Your task to perform on an android device: open wifi settings Image 0: 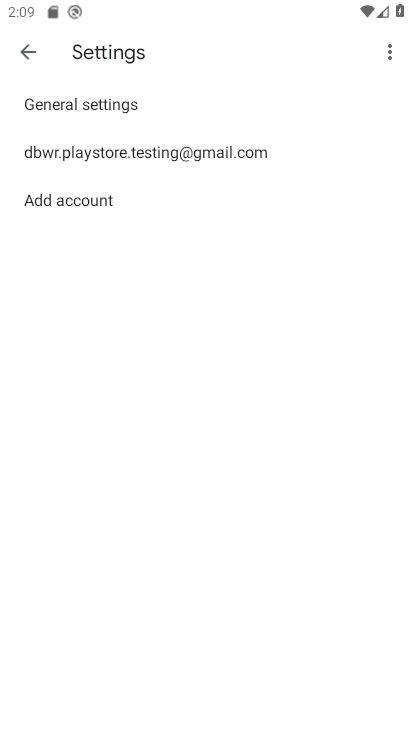
Step 0: press home button
Your task to perform on an android device: open wifi settings Image 1: 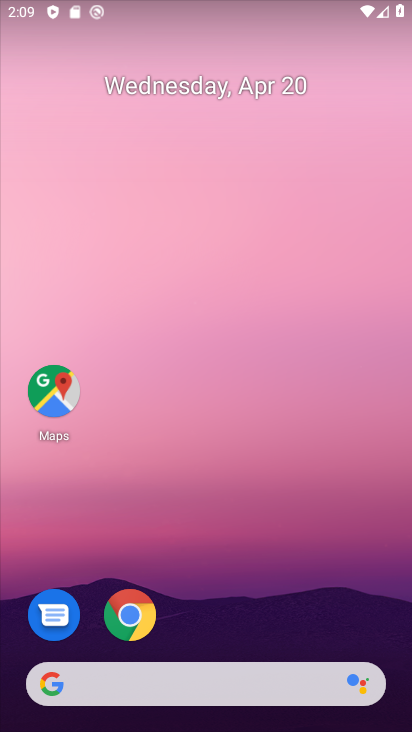
Step 1: drag from (168, 1) to (176, 522)
Your task to perform on an android device: open wifi settings Image 2: 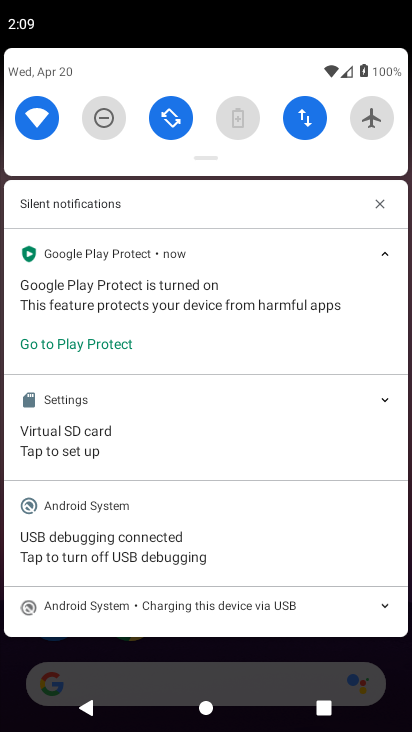
Step 2: click (52, 114)
Your task to perform on an android device: open wifi settings Image 3: 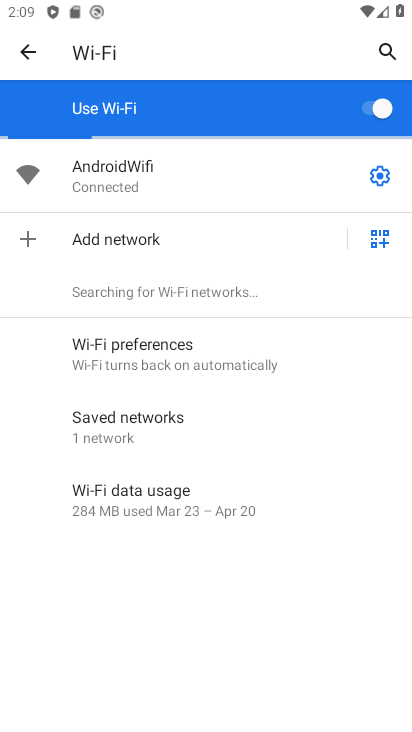
Step 3: task complete